Your task to perform on an android device: set an alarm Image 0: 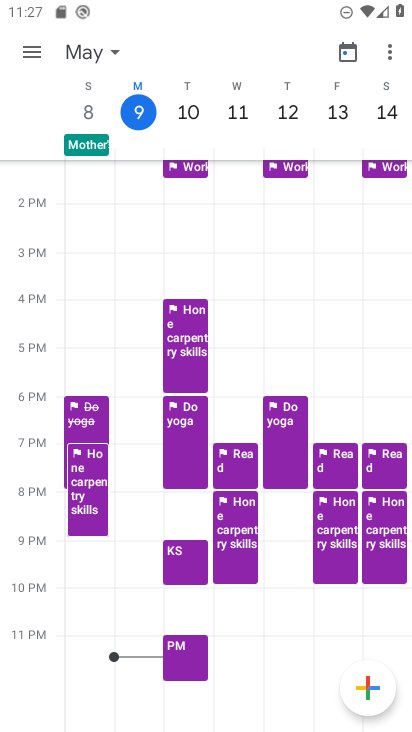
Step 0: press home button
Your task to perform on an android device: set an alarm Image 1: 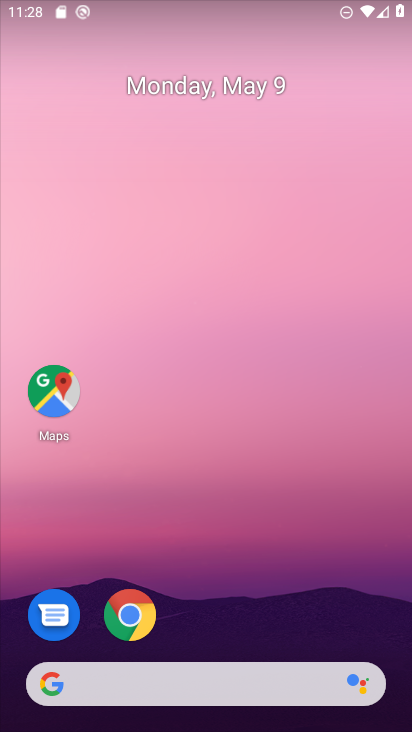
Step 1: drag from (234, 714) to (182, 224)
Your task to perform on an android device: set an alarm Image 2: 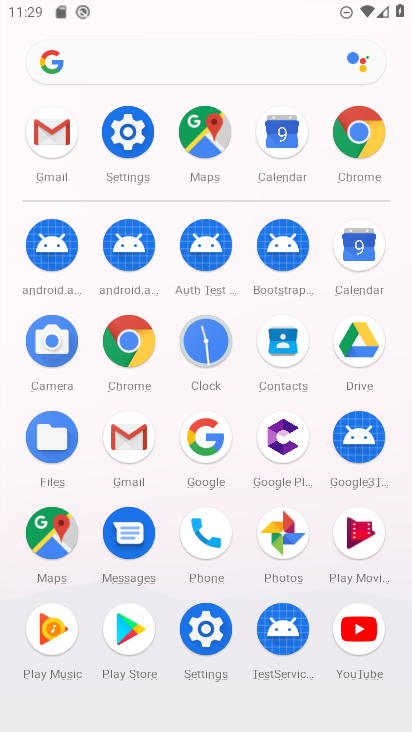
Step 2: click (218, 356)
Your task to perform on an android device: set an alarm Image 3: 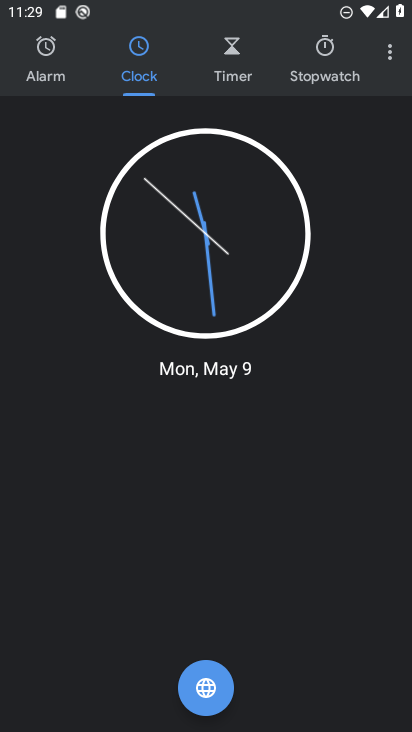
Step 3: click (52, 78)
Your task to perform on an android device: set an alarm Image 4: 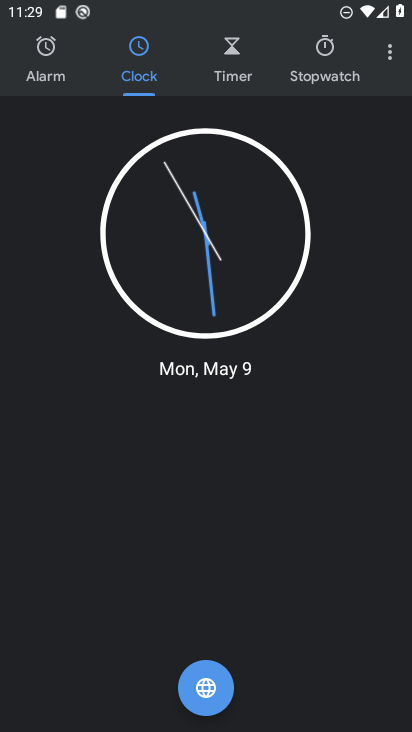
Step 4: click (56, 65)
Your task to perform on an android device: set an alarm Image 5: 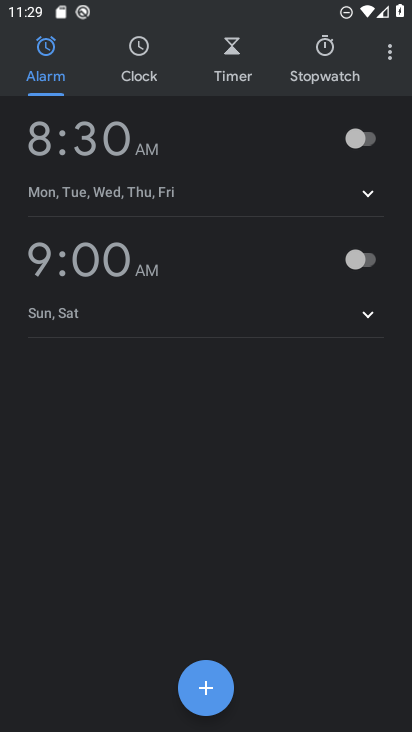
Step 5: click (350, 135)
Your task to perform on an android device: set an alarm Image 6: 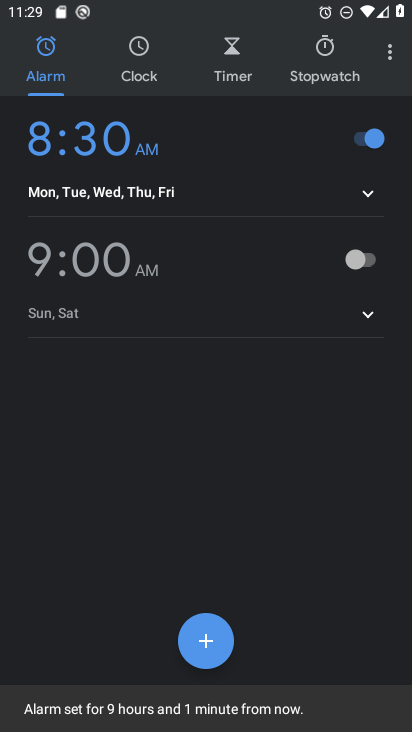
Step 6: task complete